Your task to perform on an android device: turn off sleep mode Image 0: 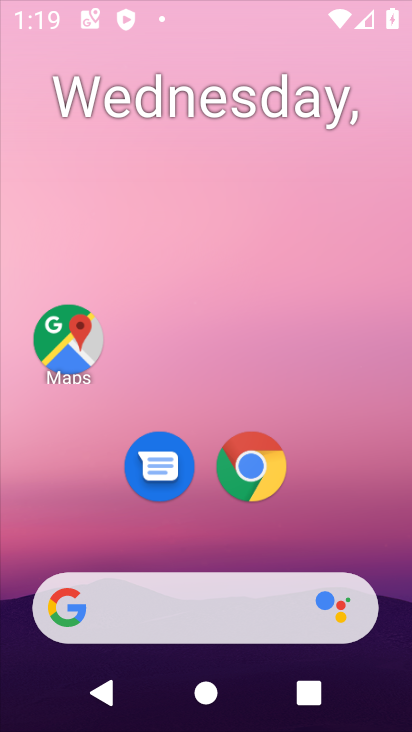
Step 0: press home button
Your task to perform on an android device: turn off sleep mode Image 1: 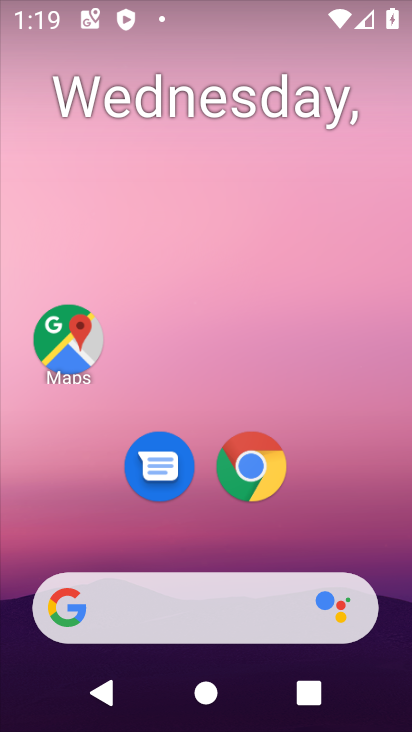
Step 1: drag from (369, 436) to (350, 69)
Your task to perform on an android device: turn off sleep mode Image 2: 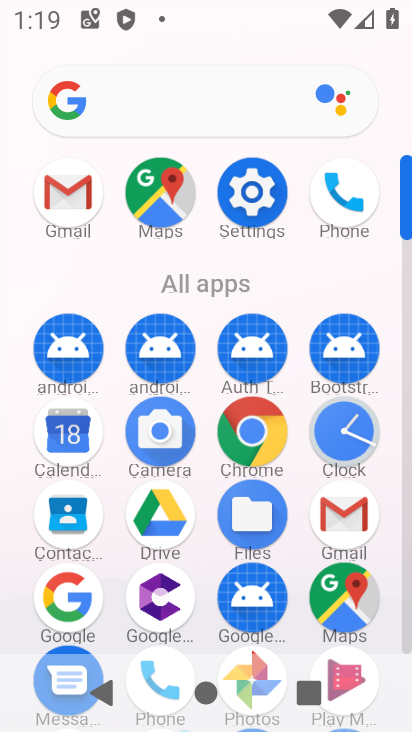
Step 2: click (246, 194)
Your task to perform on an android device: turn off sleep mode Image 3: 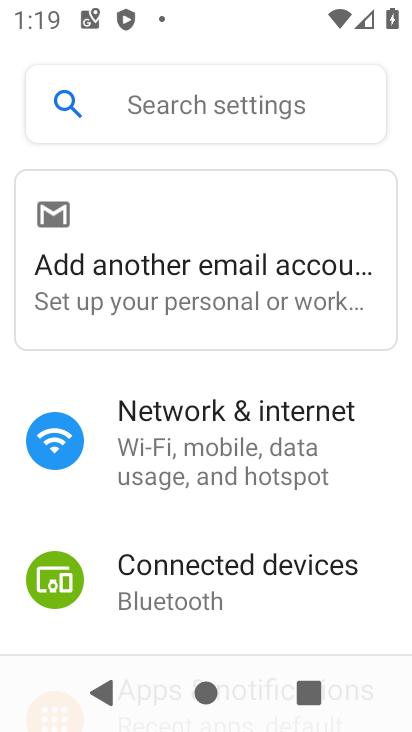
Step 3: drag from (245, 515) to (264, 354)
Your task to perform on an android device: turn off sleep mode Image 4: 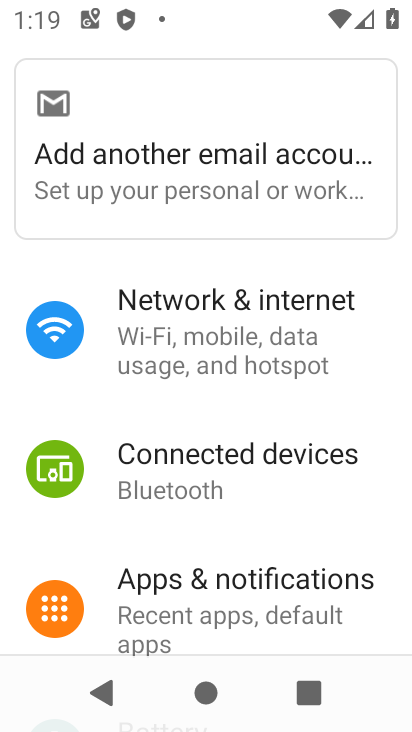
Step 4: drag from (248, 525) to (264, 410)
Your task to perform on an android device: turn off sleep mode Image 5: 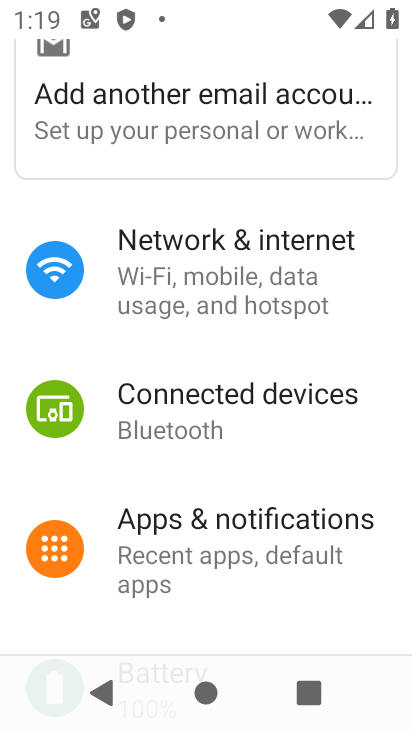
Step 5: drag from (224, 543) to (249, 393)
Your task to perform on an android device: turn off sleep mode Image 6: 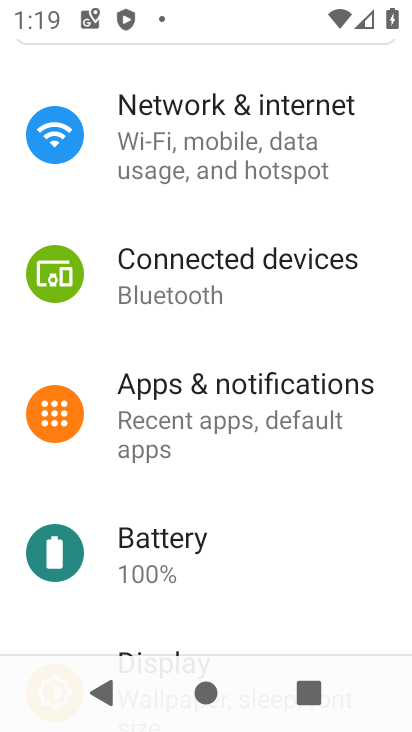
Step 6: drag from (253, 527) to (256, 381)
Your task to perform on an android device: turn off sleep mode Image 7: 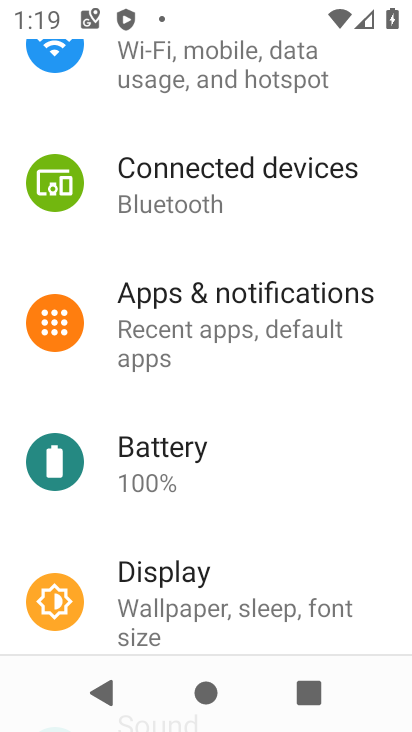
Step 7: drag from (218, 598) to (223, 473)
Your task to perform on an android device: turn off sleep mode Image 8: 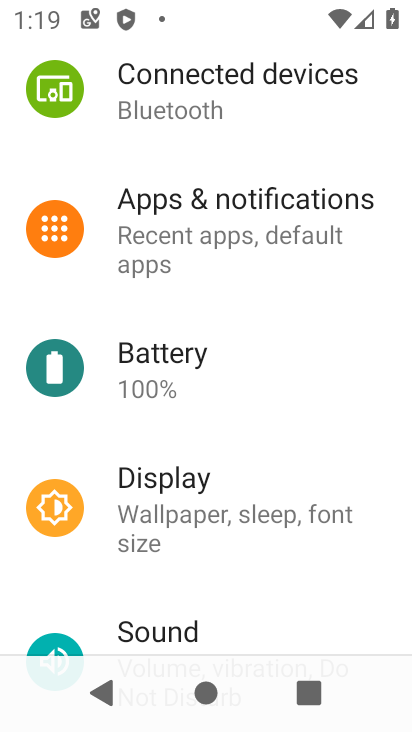
Step 8: drag from (139, 545) to (165, 462)
Your task to perform on an android device: turn off sleep mode Image 9: 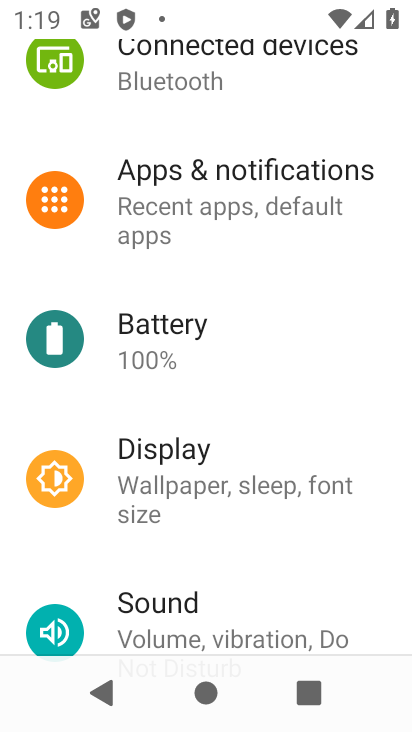
Step 9: click (165, 462)
Your task to perform on an android device: turn off sleep mode Image 10: 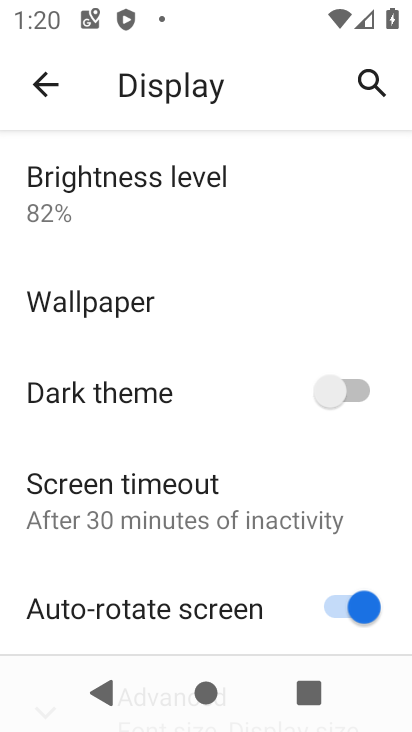
Step 10: task complete